Your task to perform on an android device: create a new album in the google photos Image 0: 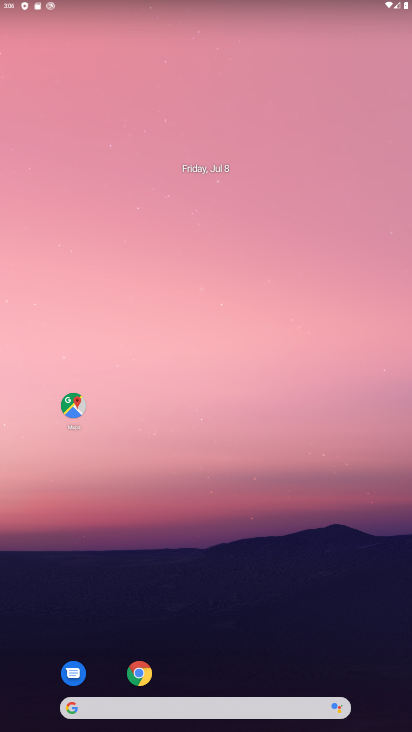
Step 0: press home button
Your task to perform on an android device: create a new album in the google photos Image 1: 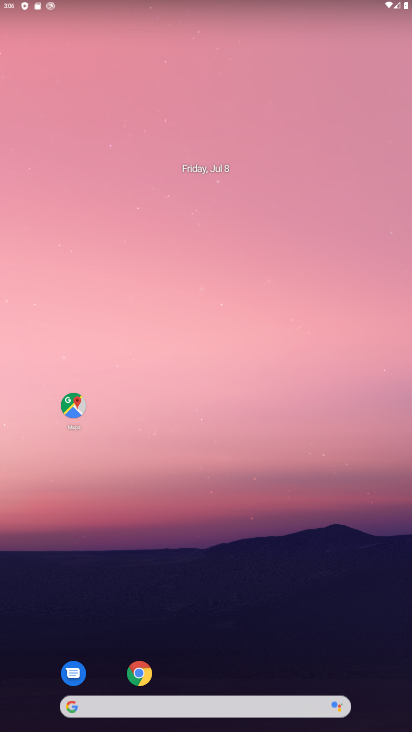
Step 1: drag from (236, 630) to (279, 0)
Your task to perform on an android device: create a new album in the google photos Image 2: 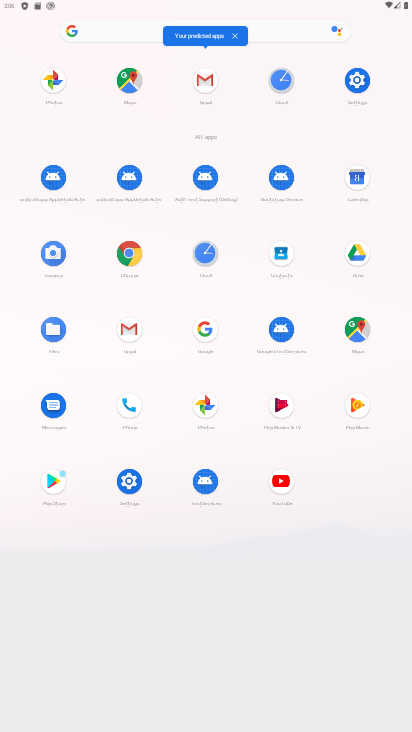
Step 2: click (208, 474)
Your task to perform on an android device: create a new album in the google photos Image 3: 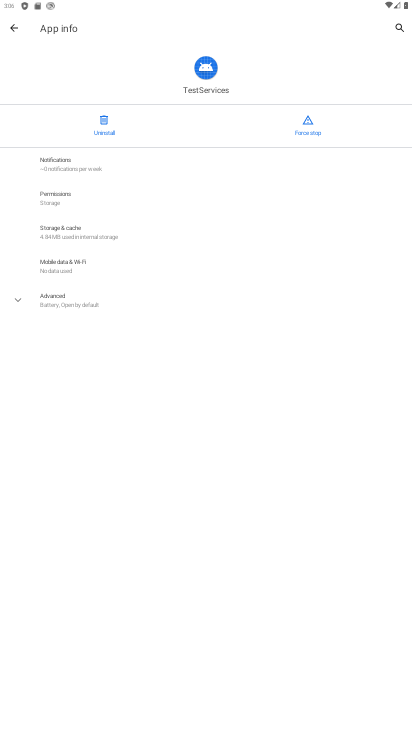
Step 3: click (13, 17)
Your task to perform on an android device: create a new album in the google photos Image 4: 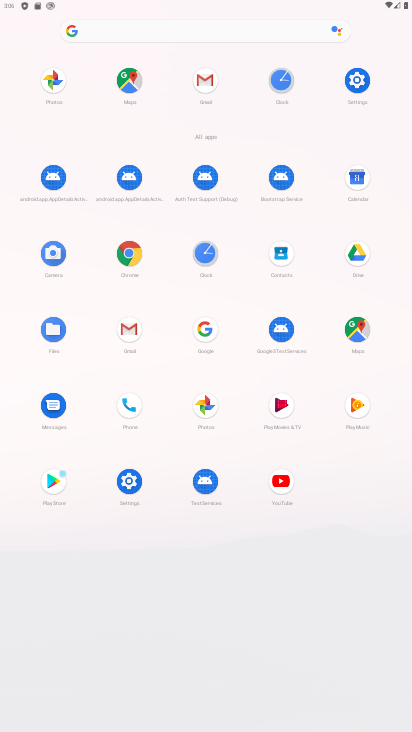
Step 4: click (205, 407)
Your task to perform on an android device: create a new album in the google photos Image 5: 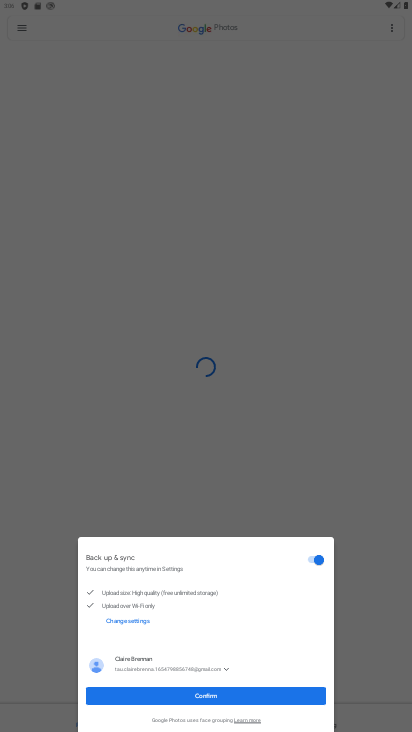
Step 5: click (260, 694)
Your task to perform on an android device: create a new album in the google photos Image 6: 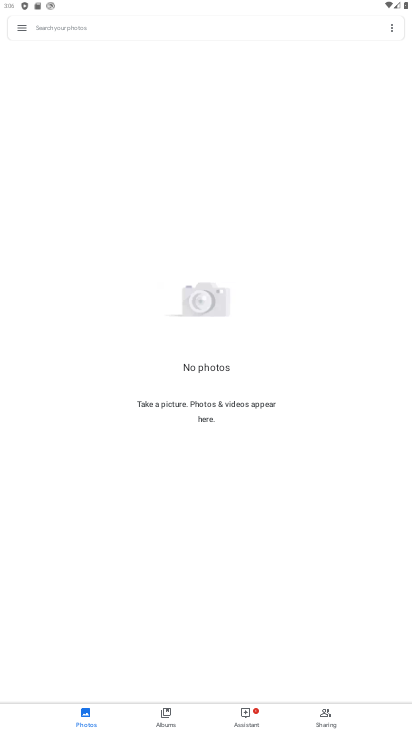
Step 6: click (167, 718)
Your task to perform on an android device: create a new album in the google photos Image 7: 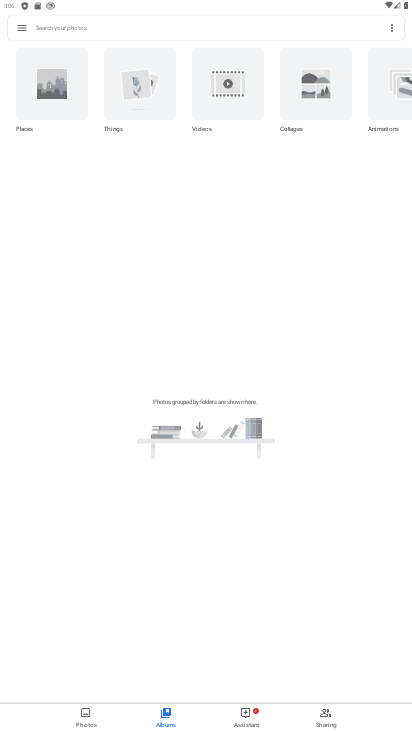
Step 7: task complete